Your task to perform on an android device: check battery use Image 0: 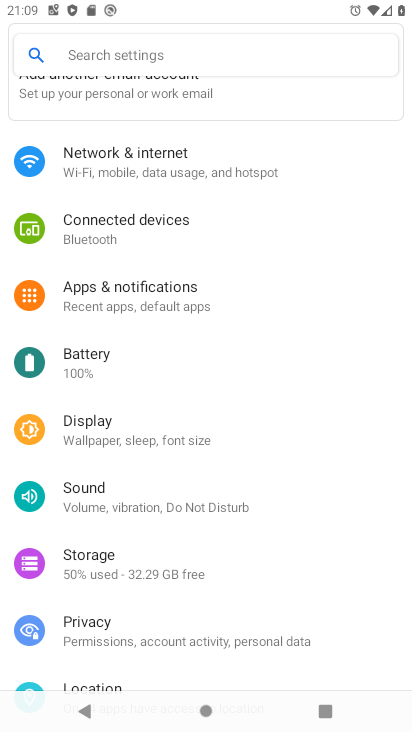
Step 0: press home button
Your task to perform on an android device: check battery use Image 1: 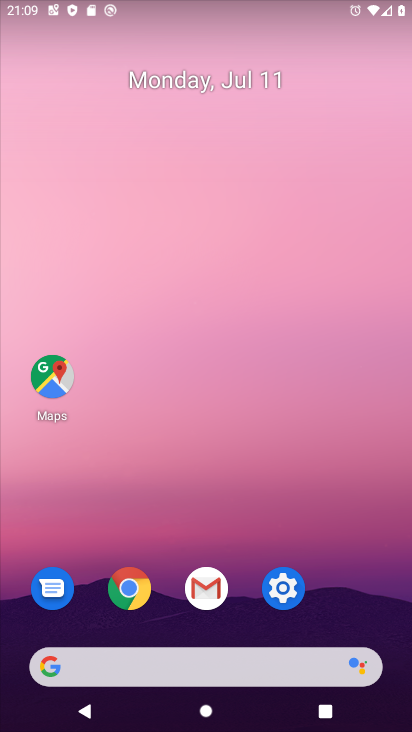
Step 1: drag from (202, 680) to (289, 91)
Your task to perform on an android device: check battery use Image 2: 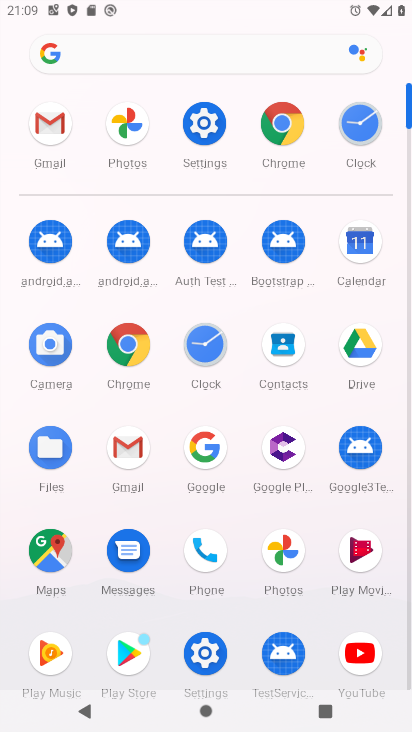
Step 2: click (198, 127)
Your task to perform on an android device: check battery use Image 3: 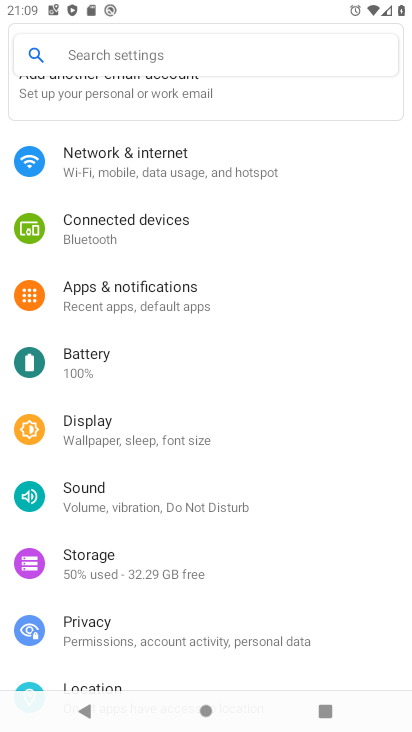
Step 3: click (115, 365)
Your task to perform on an android device: check battery use Image 4: 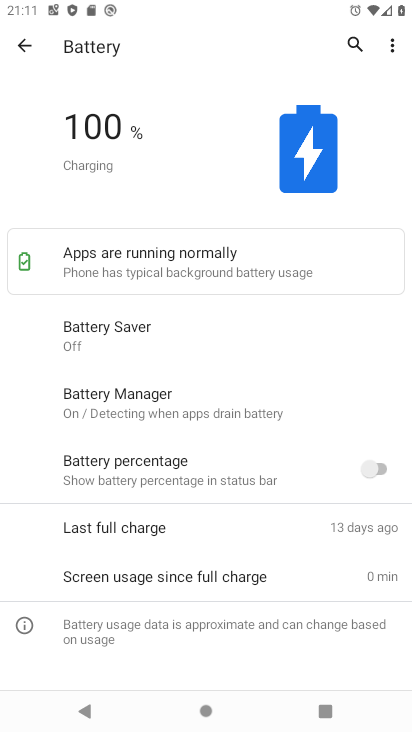
Step 4: task complete